Your task to perform on an android device: check data usage Image 0: 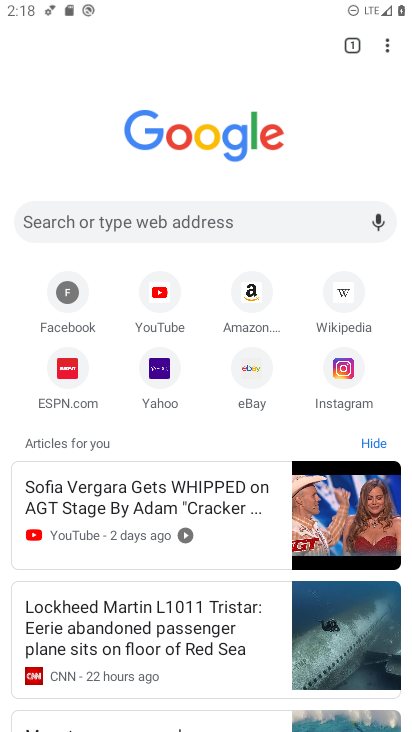
Step 0: press home button
Your task to perform on an android device: check data usage Image 1: 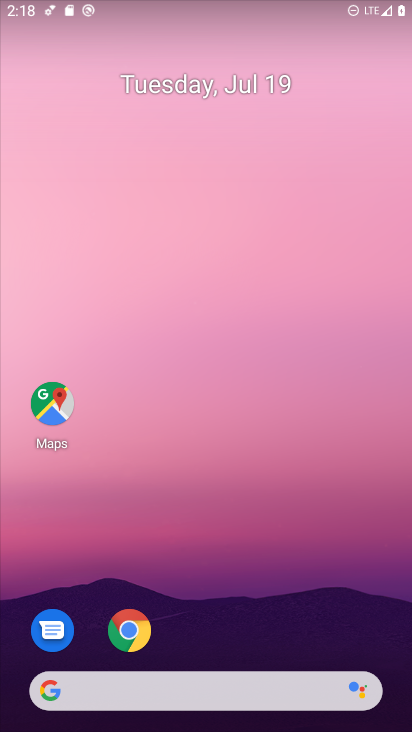
Step 1: drag from (372, 635) to (326, 212)
Your task to perform on an android device: check data usage Image 2: 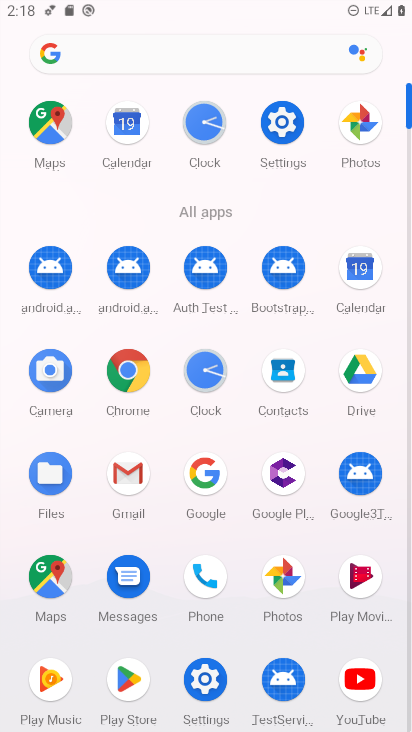
Step 2: click (204, 679)
Your task to perform on an android device: check data usage Image 3: 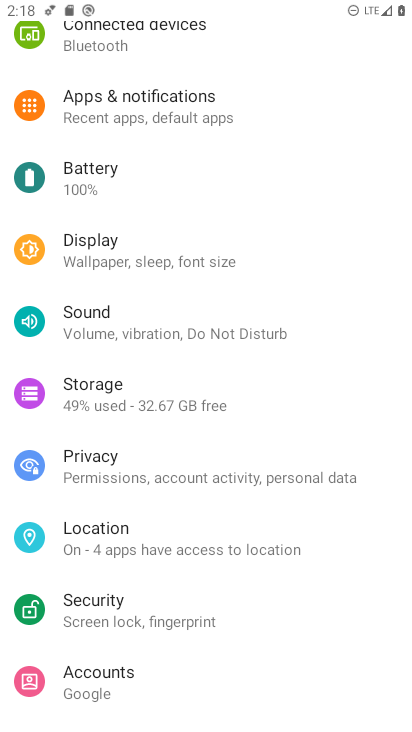
Step 3: drag from (322, 118) to (334, 313)
Your task to perform on an android device: check data usage Image 4: 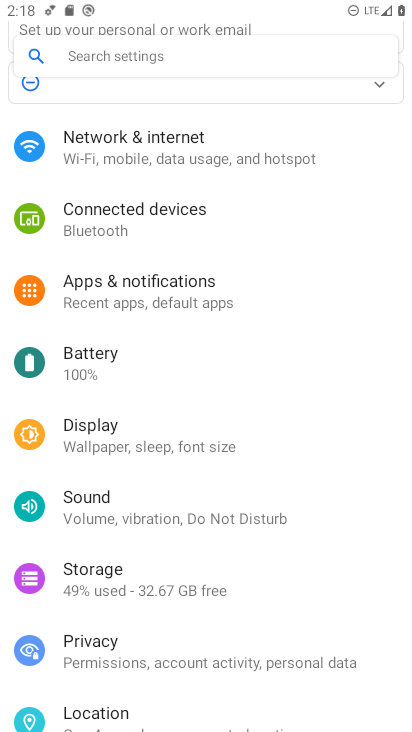
Step 4: click (122, 136)
Your task to perform on an android device: check data usage Image 5: 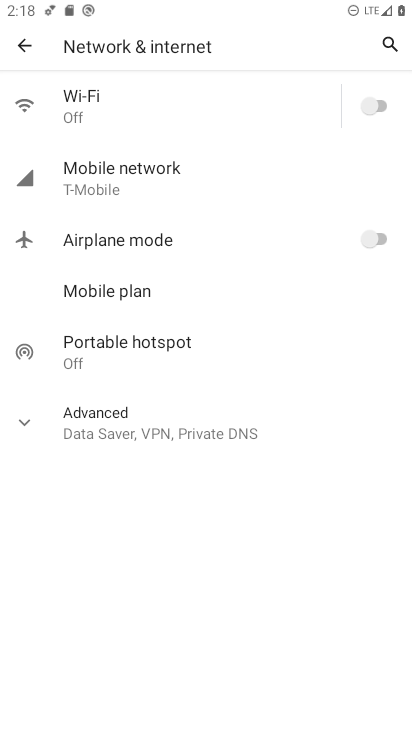
Step 5: click (96, 166)
Your task to perform on an android device: check data usage Image 6: 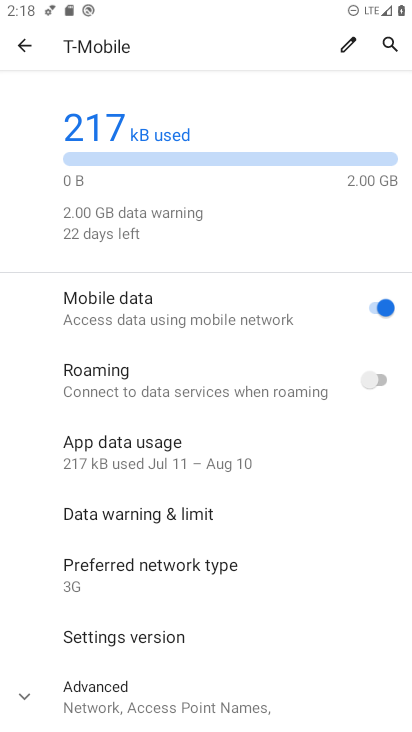
Step 6: task complete